Your task to perform on an android device: Show me recent news Image 0: 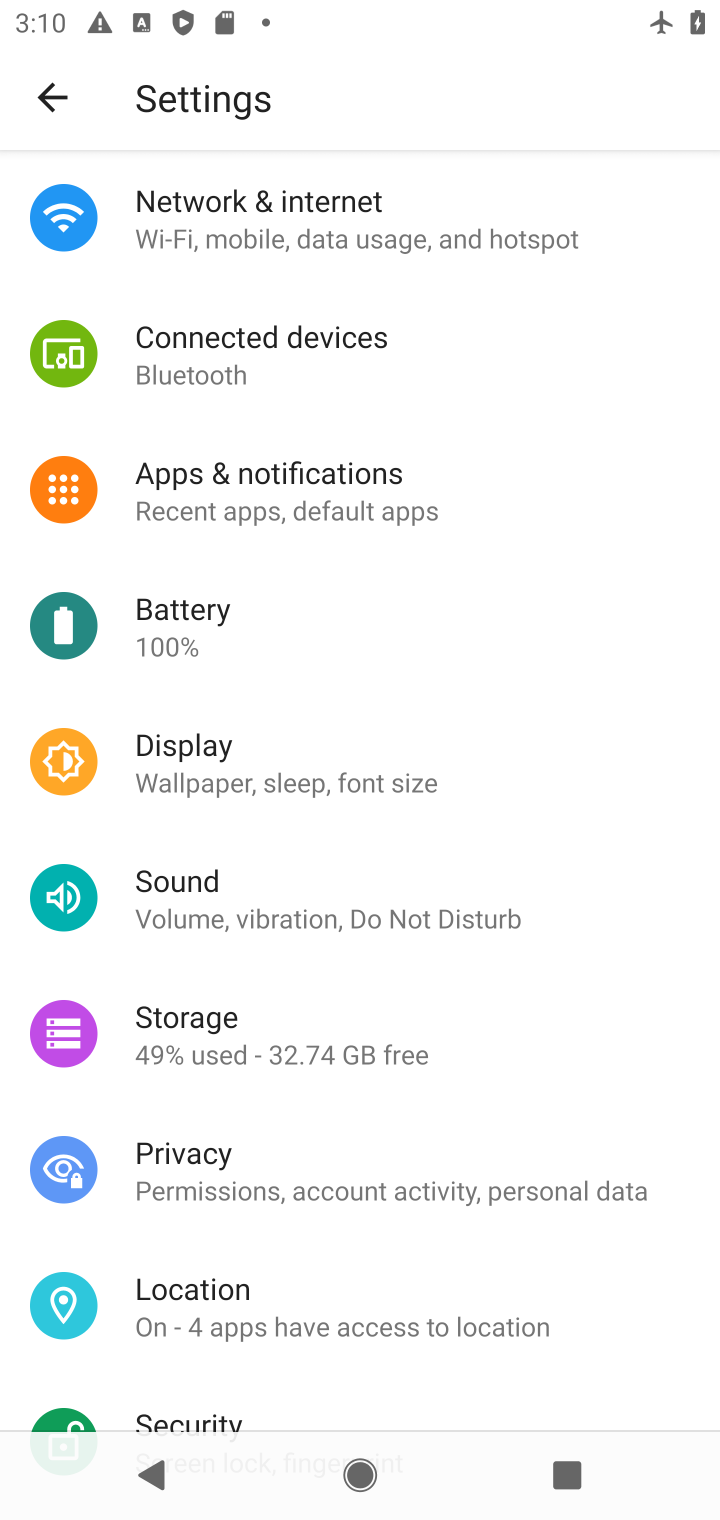
Step 0: press home button
Your task to perform on an android device: Show me recent news Image 1: 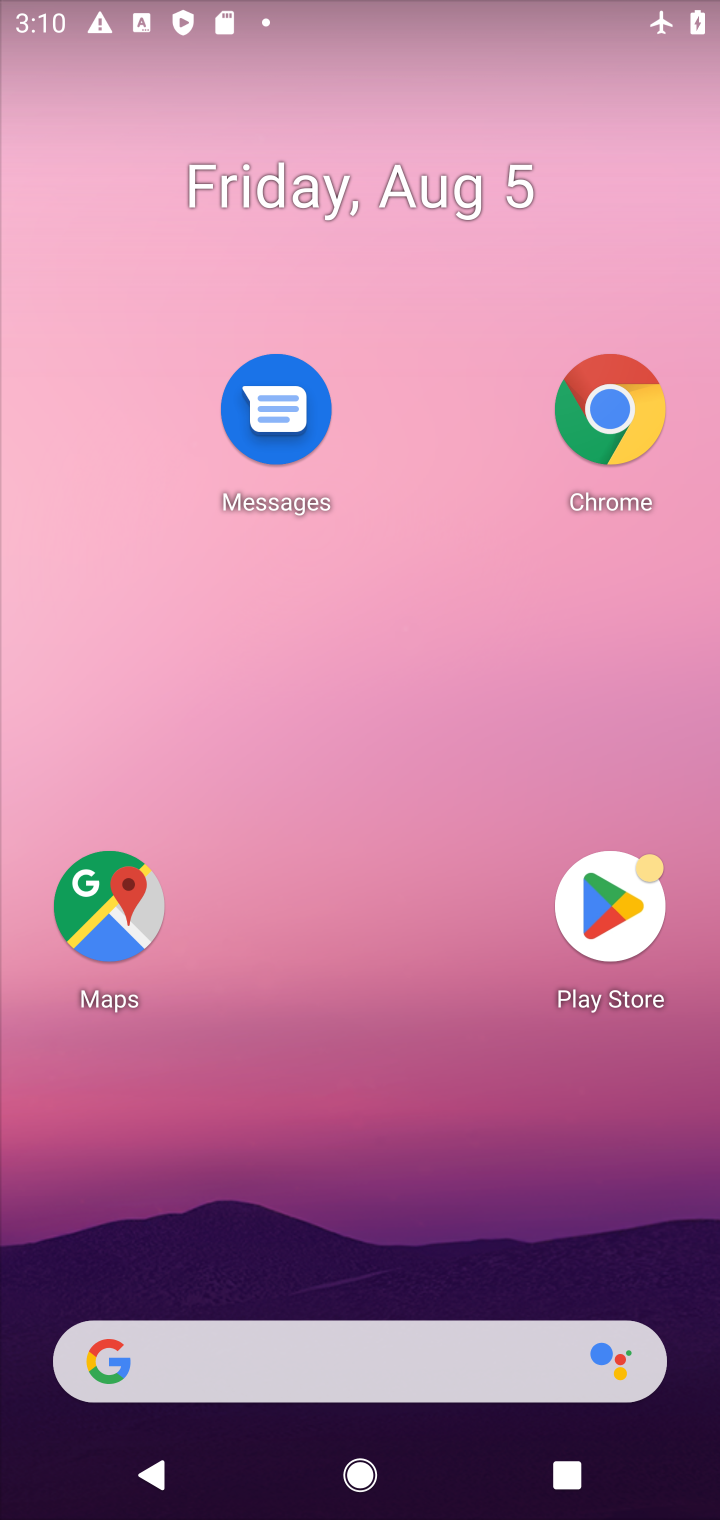
Step 1: drag from (334, 1105) to (357, 182)
Your task to perform on an android device: Show me recent news Image 2: 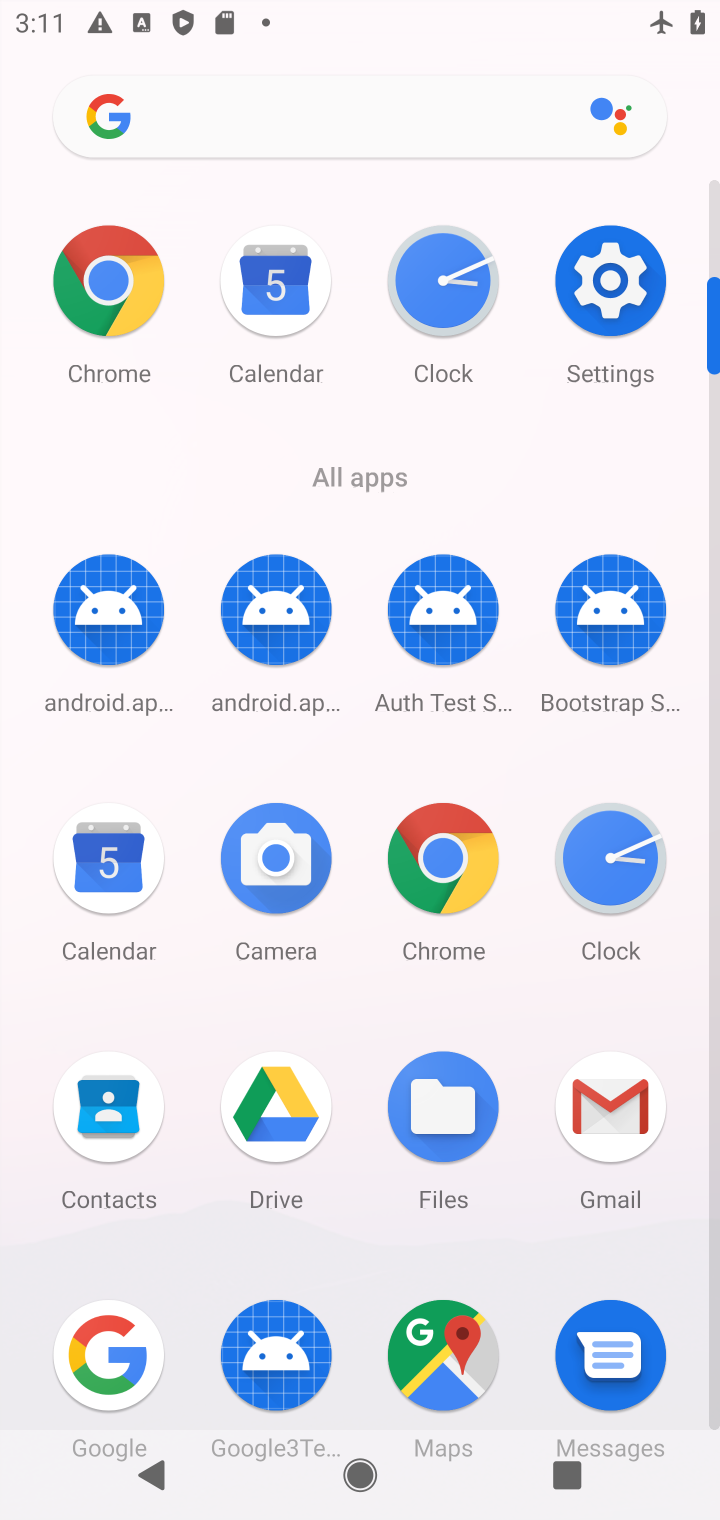
Step 2: click (132, 1349)
Your task to perform on an android device: Show me recent news Image 3: 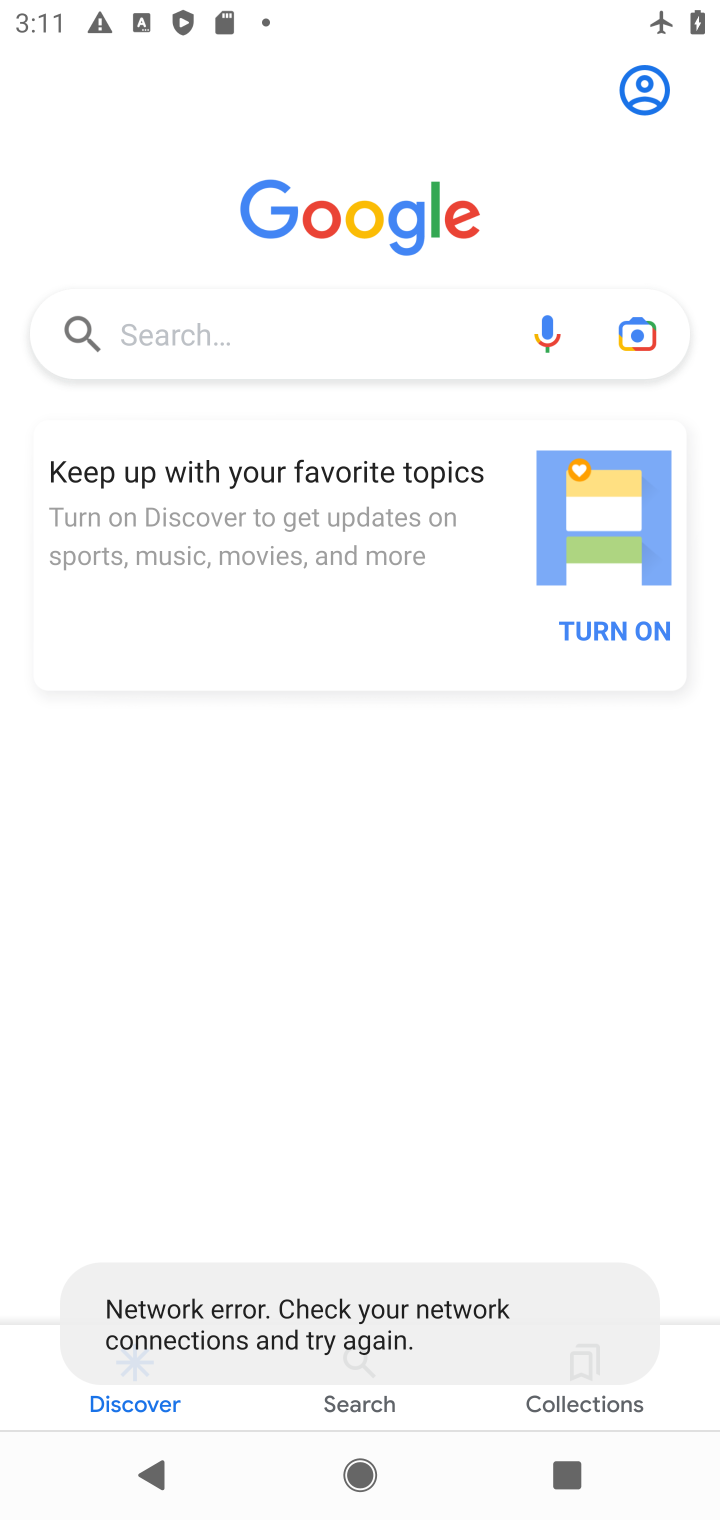
Step 3: click (213, 337)
Your task to perform on an android device: Show me recent news Image 4: 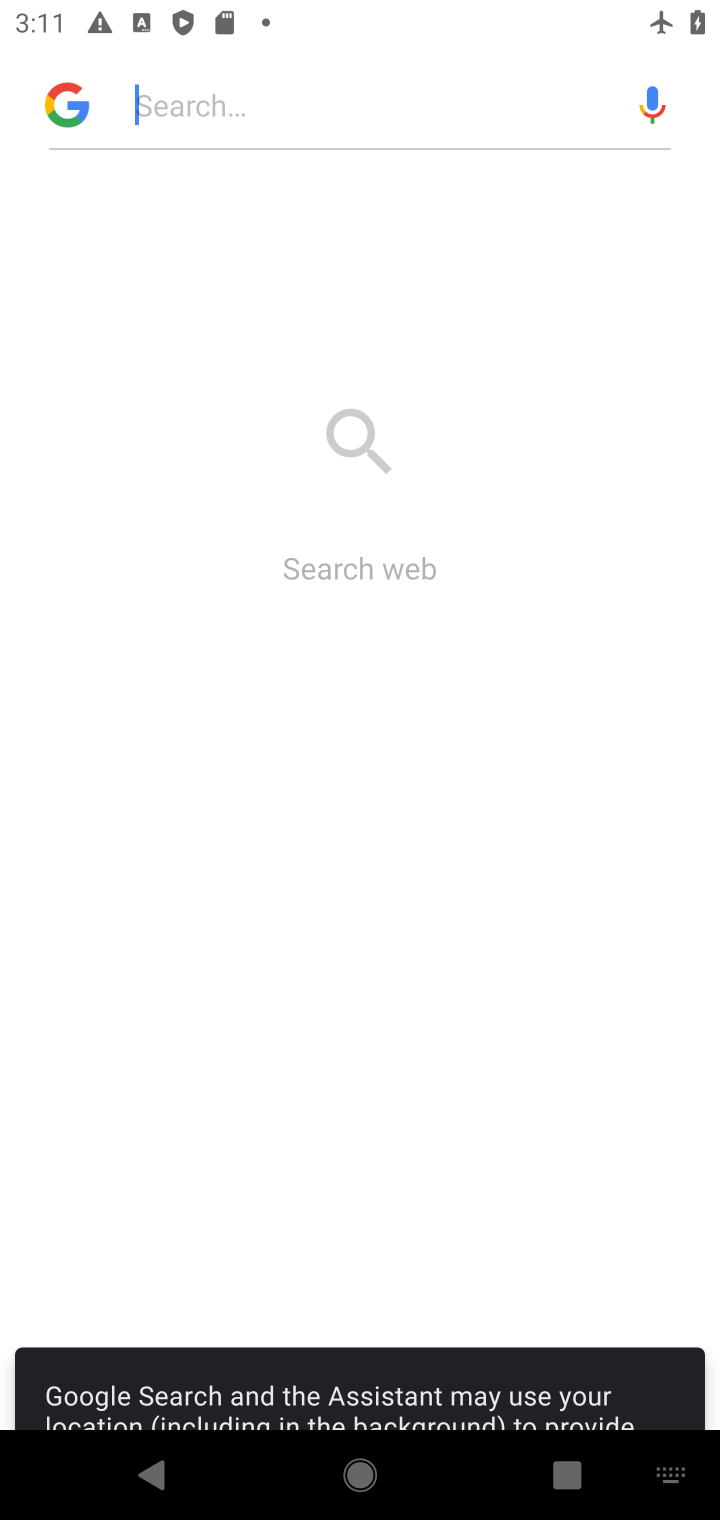
Step 4: type "news"
Your task to perform on an android device: Show me recent news Image 5: 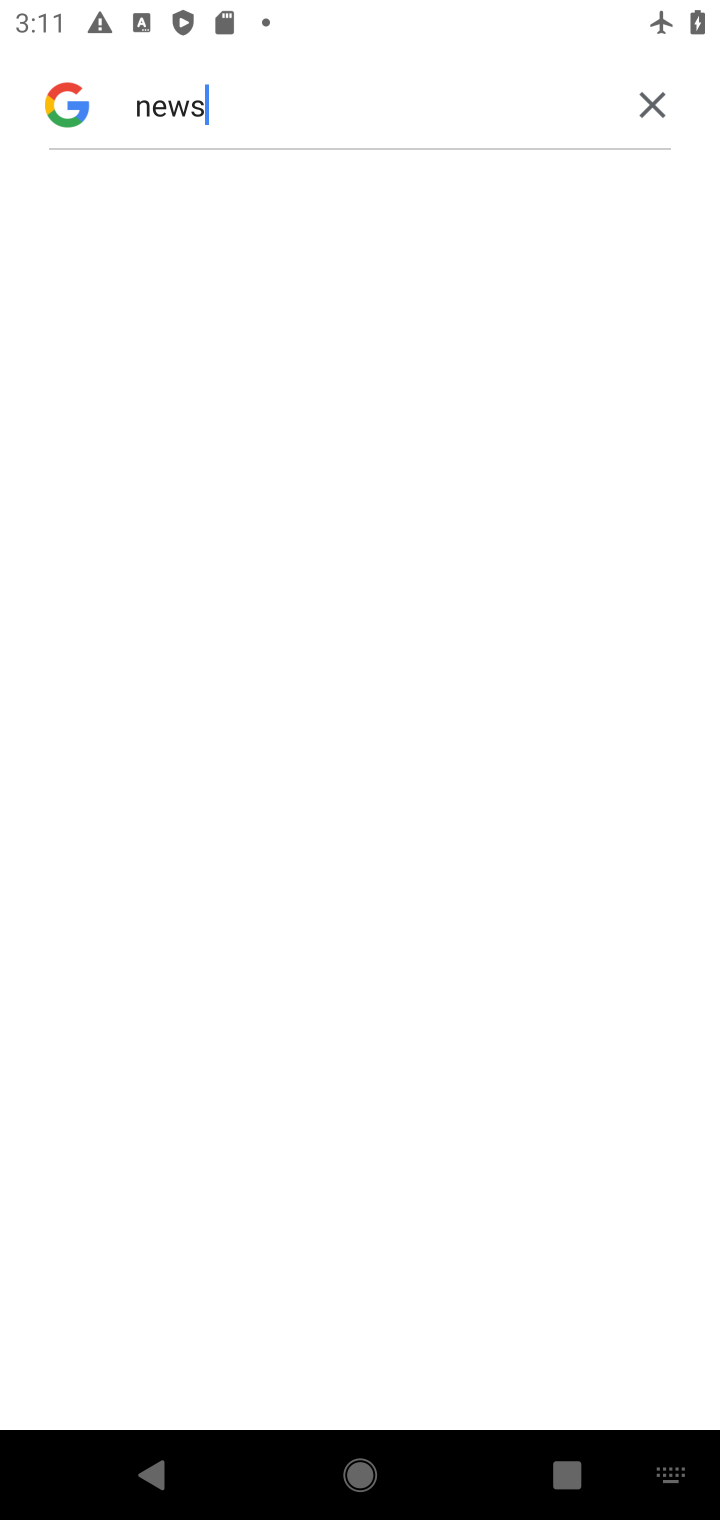
Step 5: type ""
Your task to perform on an android device: Show me recent news Image 6: 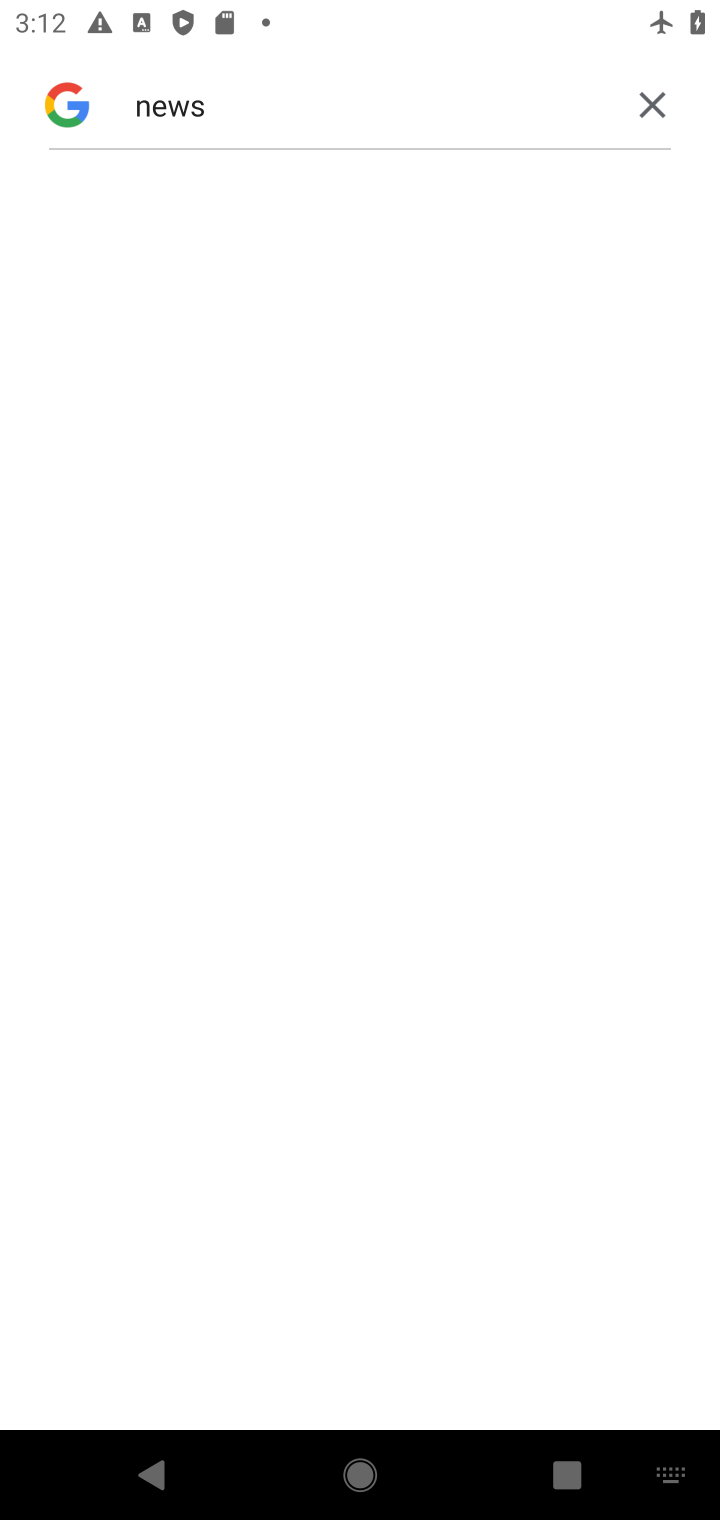
Step 6: task complete